Your task to perform on an android device: Open the calendar and show me this week's events? Image 0: 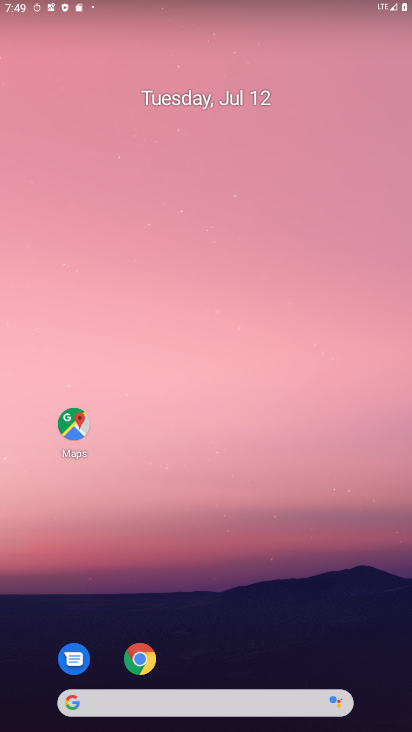
Step 0: drag from (392, 664) to (245, 54)
Your task to perform on an android device: Open the calendar and show me this week's events? Image 1: 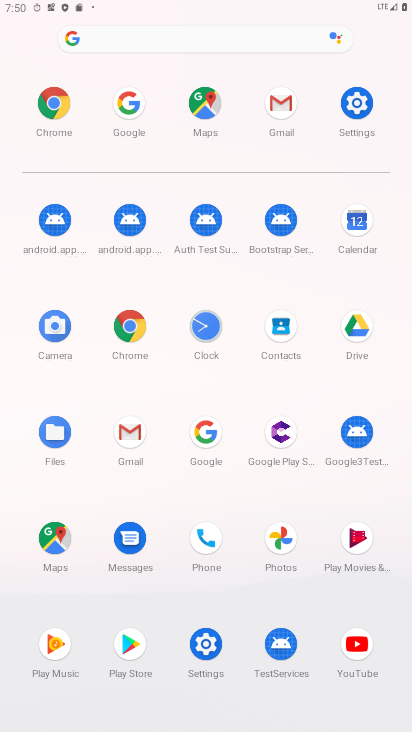
Step 1: click (354, 238)
Your task to perform on an android device: Open the calendar and show me this week's events? Image 2: 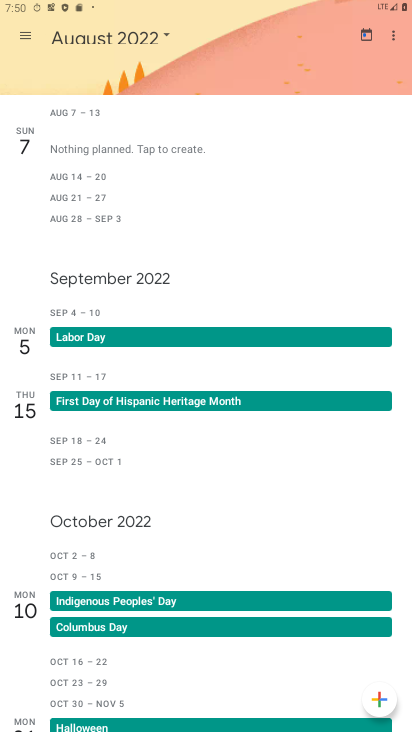
Step 2: task complete